Your task to perform on an android device: turn on data saver in the chrome app Image 0: 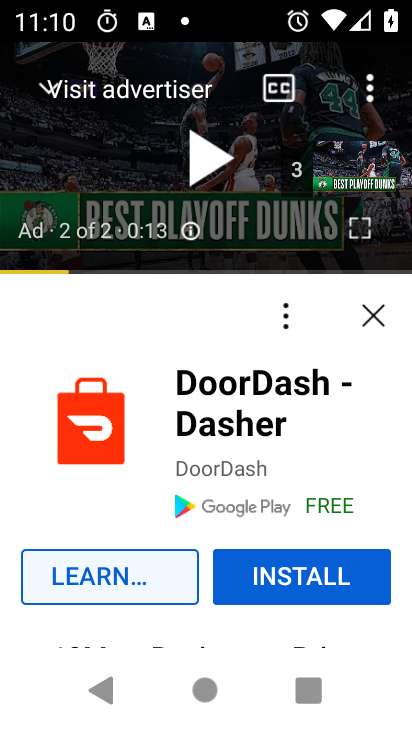
Step 0: press home button
Your task to perform on an android device: turn on data saver in the chrome app Image 1: 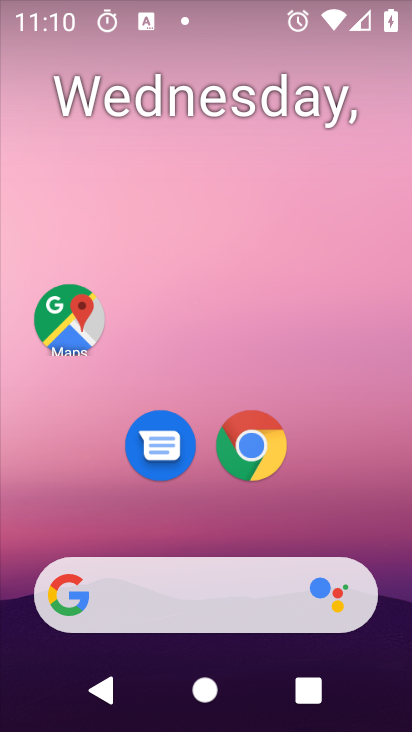
Step 1: drag from (367, 471) to (398, 102)
Your task to perform on an android device: turn on data saver in the chrome app Image 2: 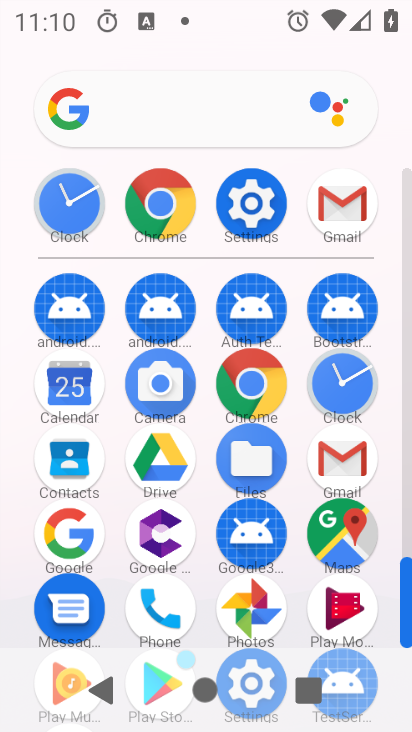
Step 2: click (159, 196)
Your task to perform on an android device: turn on data saver in the chrome app Image 3: 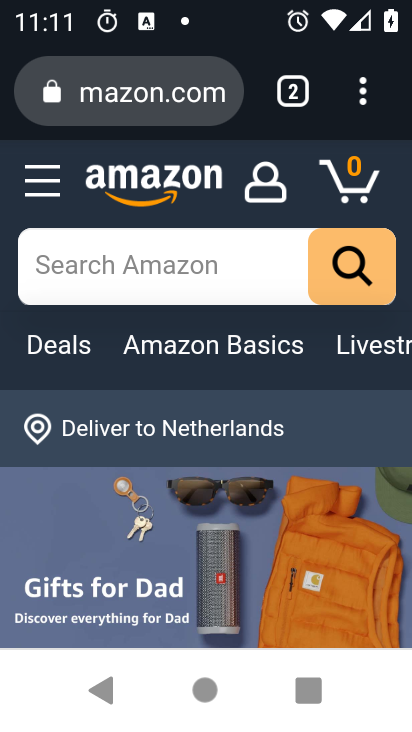
Step 3: drag from (363, 86) to (173, 468)
Your task to perform on an android device: turn on data saver in the chrome app Image 4: 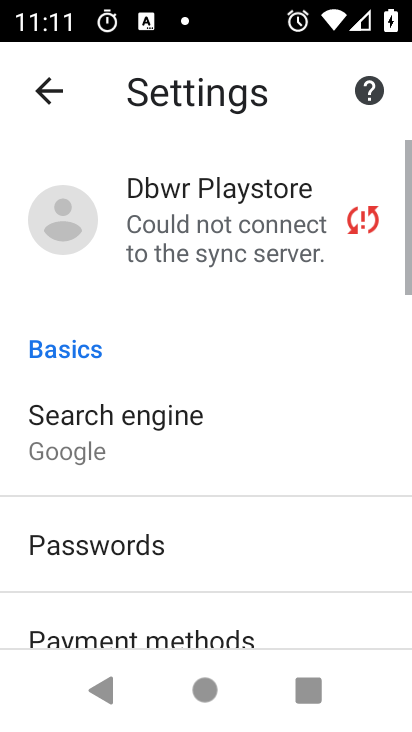
Step 4: drag from (184, 544) to (286, 55)
Your task to perform on an android device: turn on data saver in the chrome app Image 5: 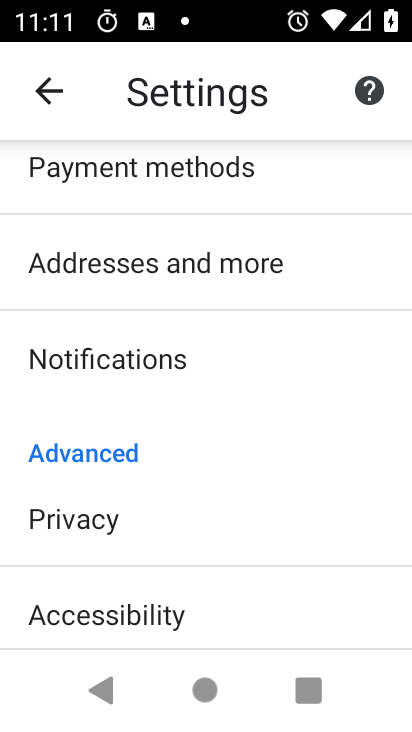
Step 5: drag from (237, 568) to (334, 217)
Your task to perform on an android device: turn on data saver in the chrome app Image 6: 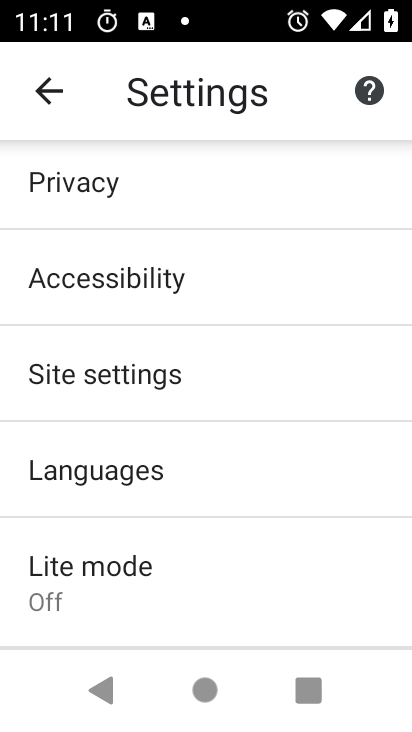
Step 6: drag from (206, 568) to (289, 272)
Your task to perform on an android device: turn on data saver in the chrome app Image 7: 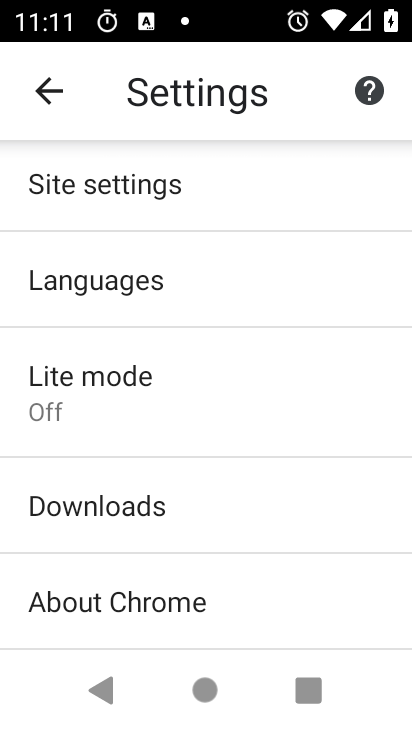
Step 7: click (129, 398)
Your task to perform on an android device: turn on data saver in the chrome app Image 8: 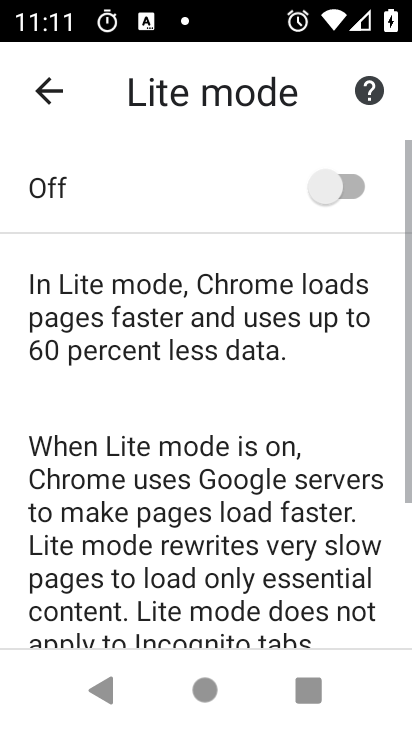
Step 8: click (351, 189)
Your task to perform on an android device: turn on data saver in the chrome app Image 9: 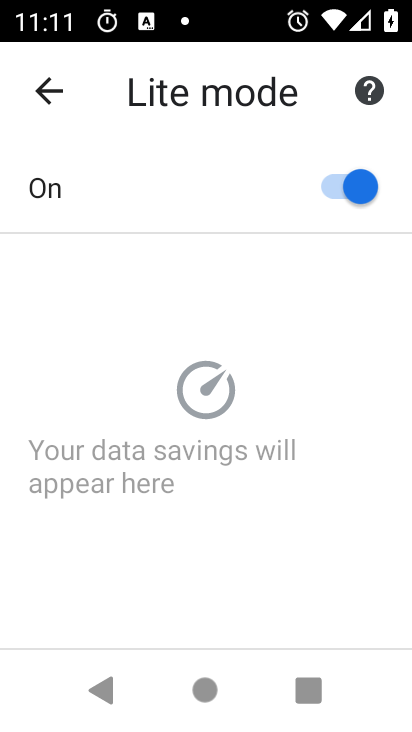
Step 9: task complete